Your task to perform on an android device: What's the news in Jamaica? Image 0: 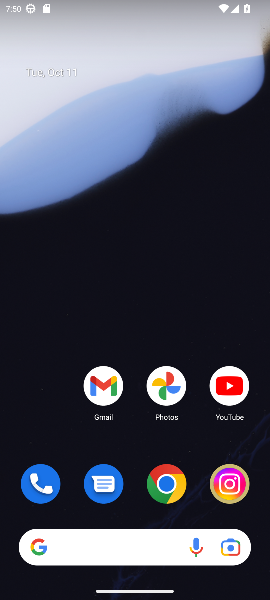
Step 0: click (165, 484)
Your task to perform on an android device: What's the news in Jamaica? Image 1: 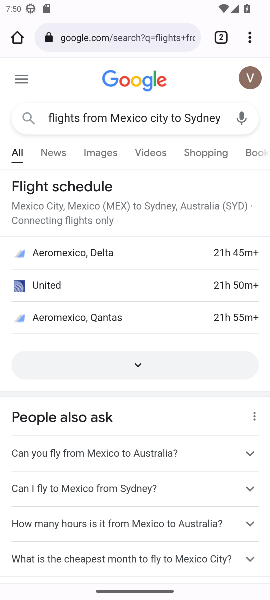
Step 1: click (83, 34)
Your task to perform on an android device: What's the news in Jamaica? Image 2: 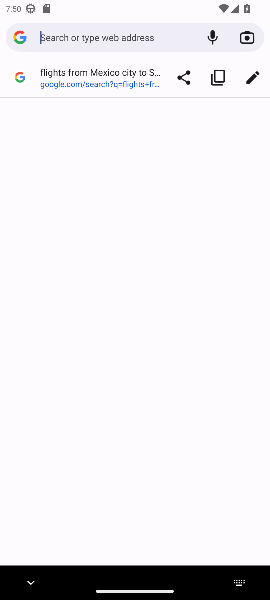
Step 2: type "What's the news in Jamaica?"
Your task to perform on an android device: What's the news in Jamaica? Image 3: 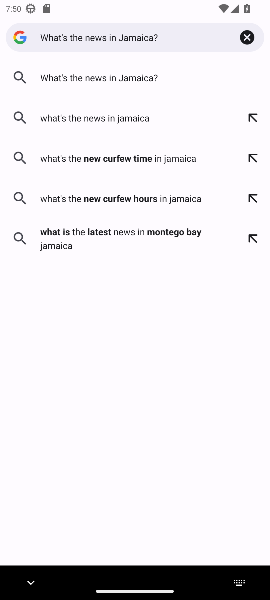
Step 3: click (151, 76)
Your task to perform on an android device: What's the news in Jamaica? Image 4: 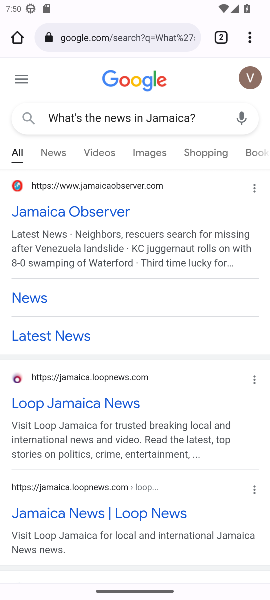
Step 4: click (88, 508)
Your task to perform on an android device: What's the news in Jamaica? Image 5: 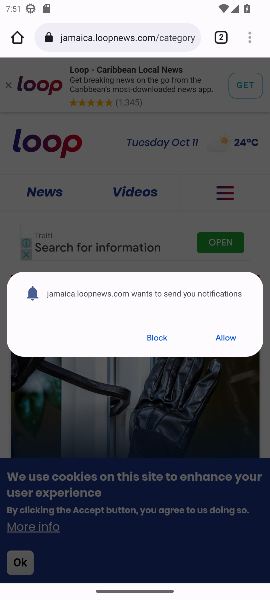
Step 5: click (227, 340)
Your task to perform on an android device: What's the news in Jamaica? Image 6: 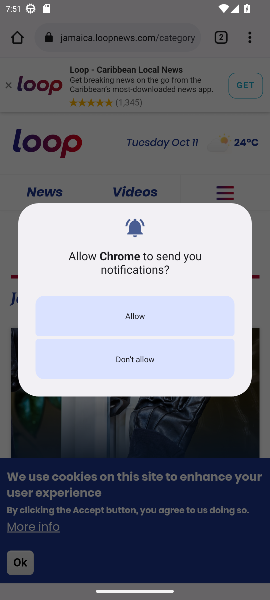
Step 6: click (135, 313)
Your task to perform on an android device: What's the news in Jamaica? Image 7: 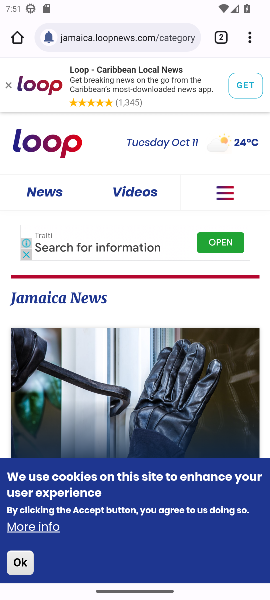
Step 7: click (21, 565)
Your task to perform on an android device: What's the news in Jamaica? Image 8: 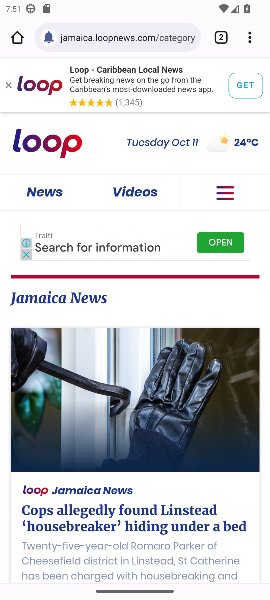
Step 8: task complete